Your task to perform on an android device: Search for a 1/4" hex shank drill bit on Lowe's. Image 0: 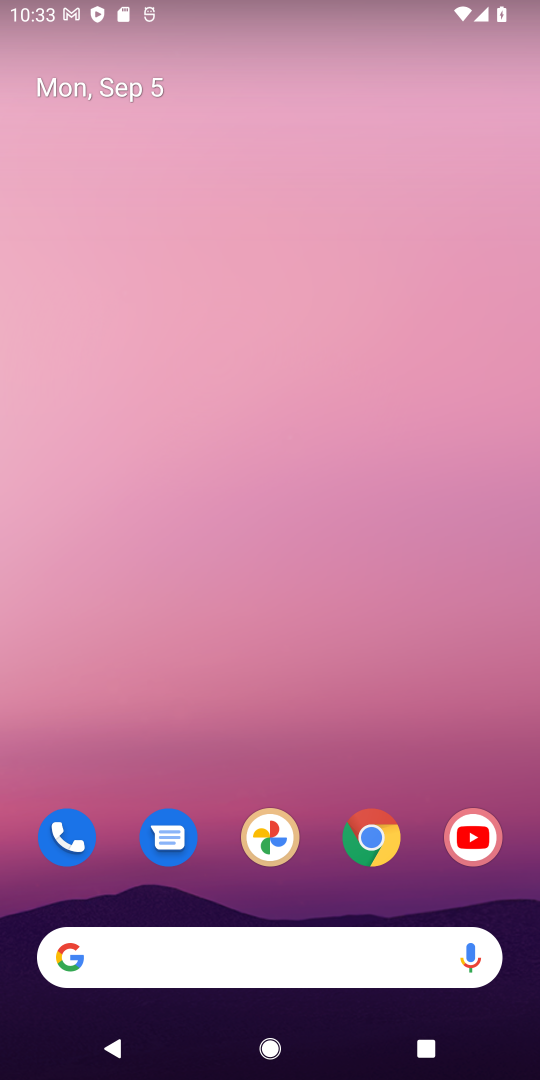
Step 0: press home button
Your task to perform on an android device: Search for a 1/4" hex shank drill bit on Lowe's. Image 1: 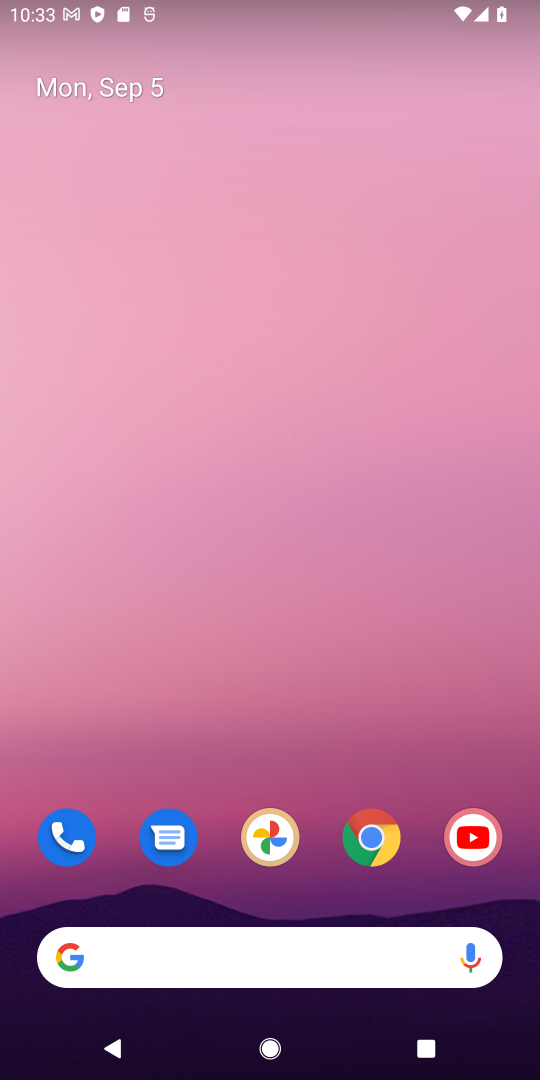
Step 1: press home button
Your task to perform on an android device: Search for a 1/4" hex shank drill bit on Lowe's. Image 2: 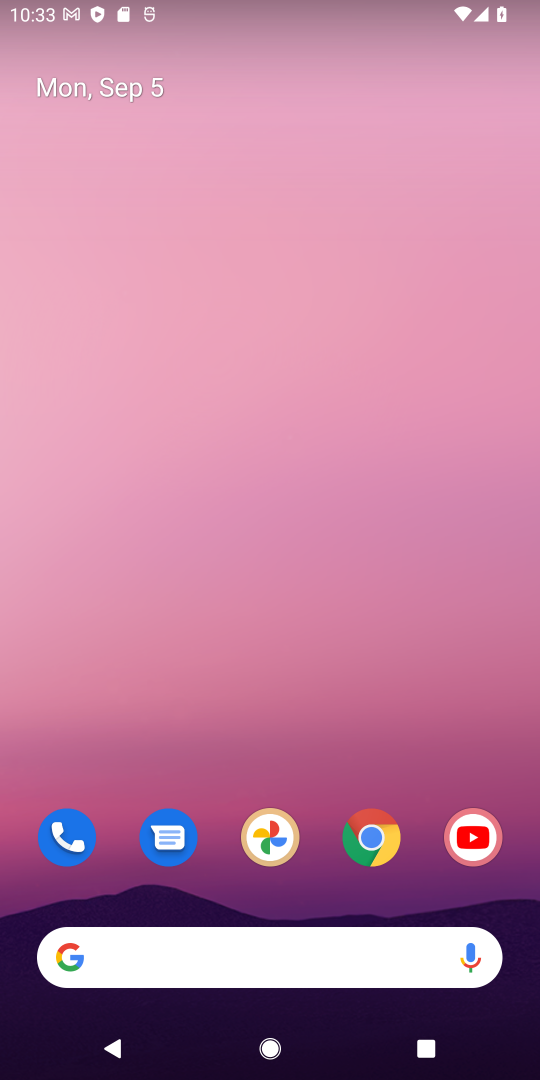
Step 2: drag from (325, 895) to (362, 67)
Your task to perform on an android device: Search for a 1/4" hex shank drill bit on Lowe's. Image 3: 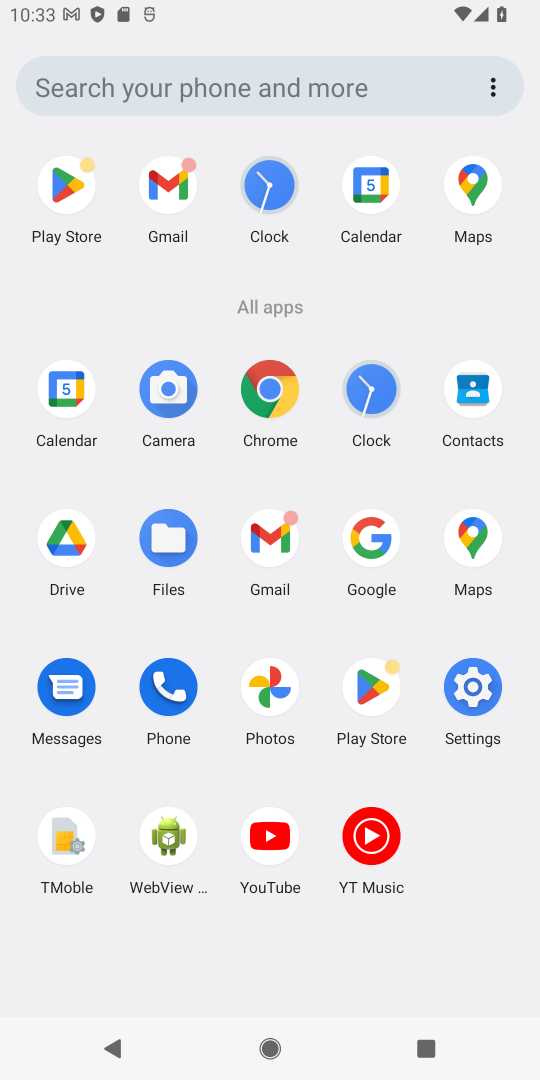
Step 3: click (268, 381)
Your task to perform on an android device: Search for a 1/4" hex shank drill bit on Lowe's. Image 4: 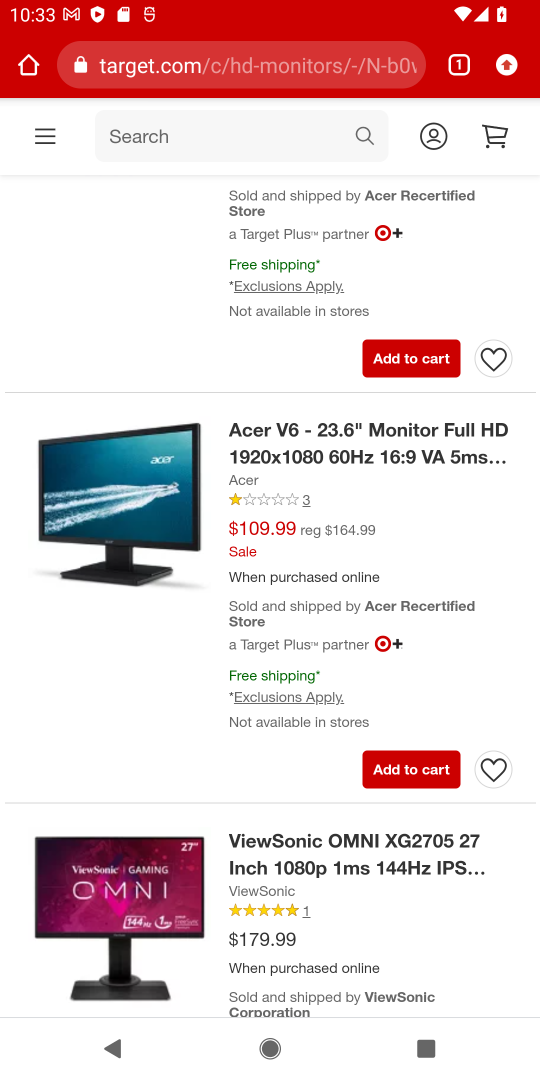
Step 4: click (457, 63)
Your task to perform on an android device: Search for a 1/4" hex shank drill bit on Lowe's. Image 5: 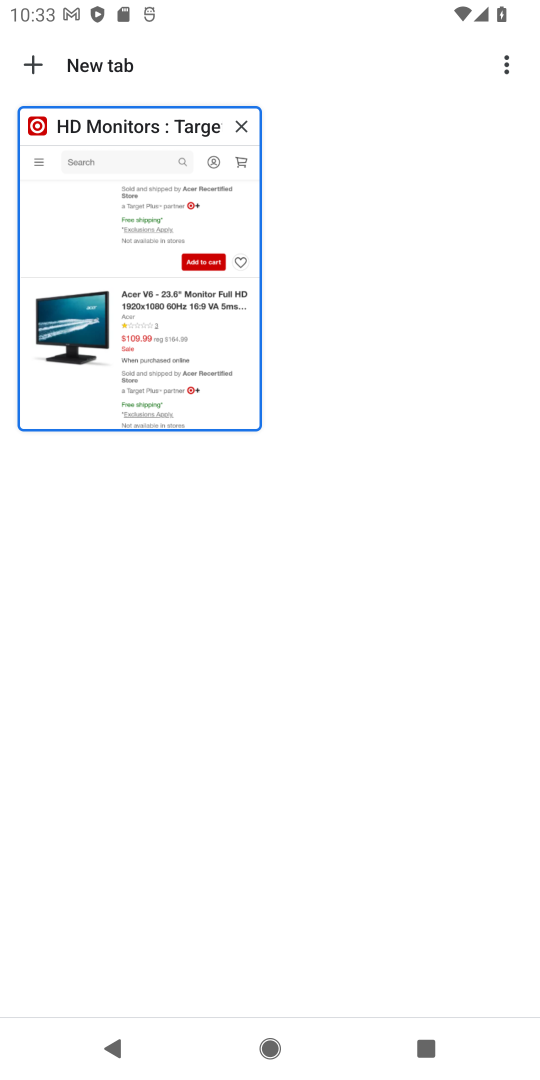
Step 5: click (244, 118)
Your task to perform on an android device: Search for a 1/4" hex shank drill bit on Lowe's. Image 6: 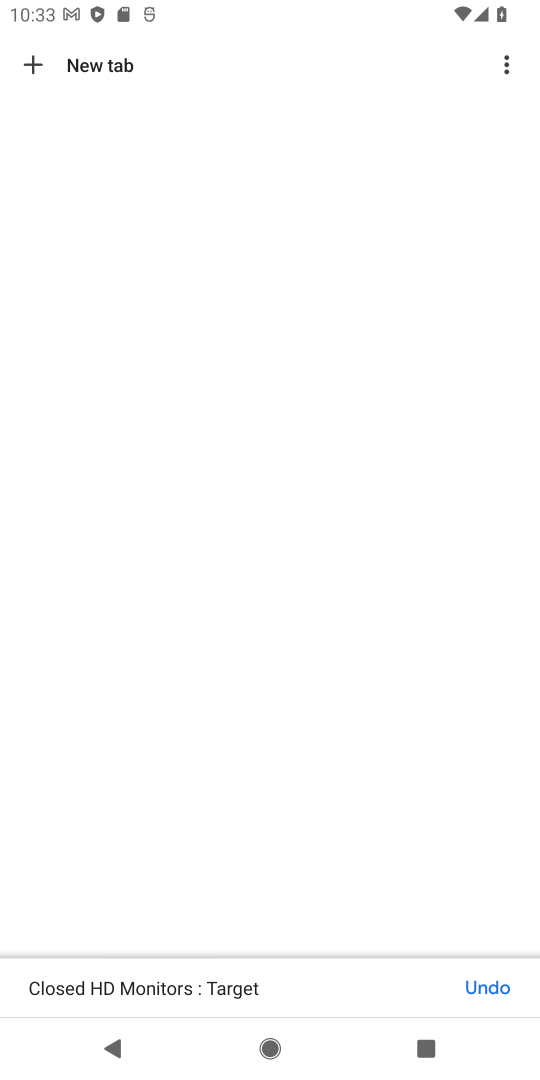
Step 6: click (30, 59)
Your task to perform on an android device: Search for a 1/4" hex shank drill bit on Lowe's. Image 7: 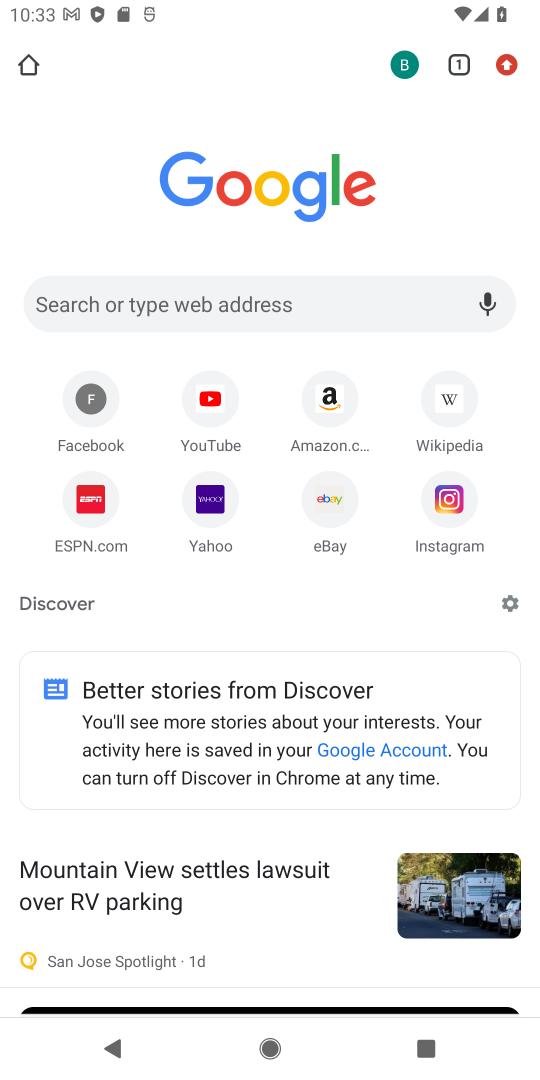
Step 7: type "hex shank drill bit on Lowe's"
Your task to perform on an android device: Search for a 1/4" hex shank drill bit on Lowe's. Image 8: 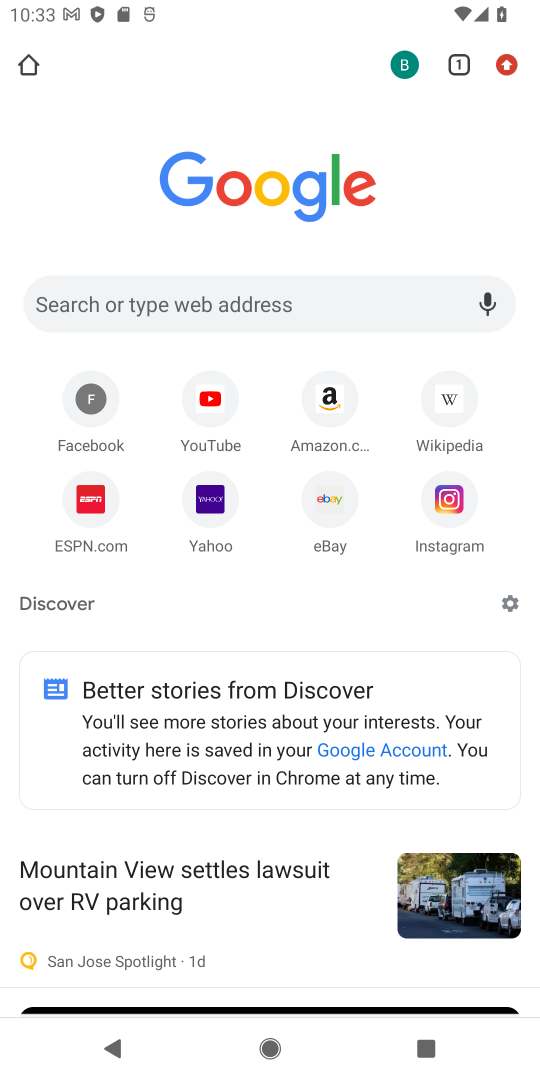
Step 8: click (165, 309)
Your task to perform on an android device: Search for a 1/4" hex shank drill bit on Lowe's. Image 9: 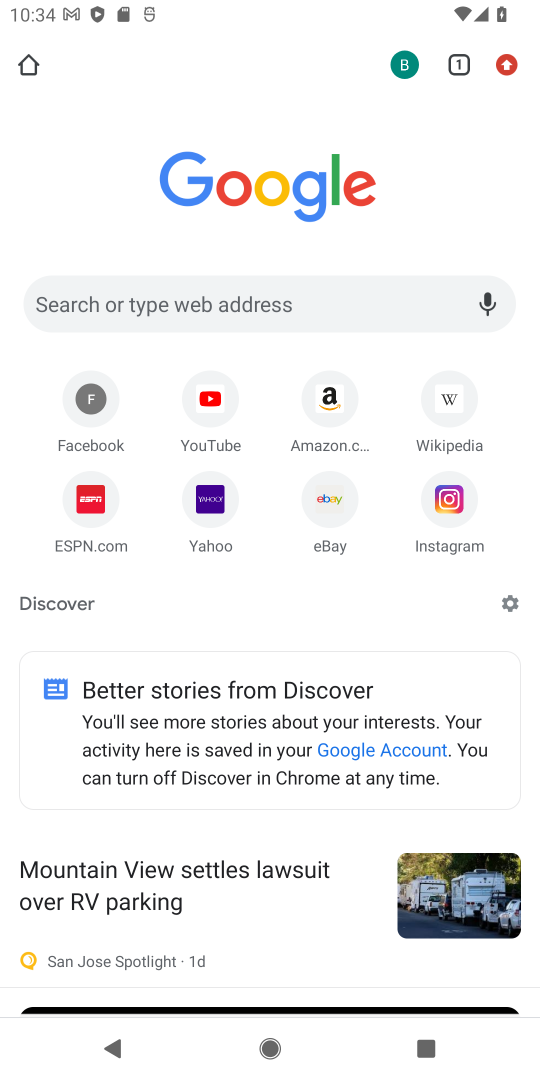
Step 9: click (173, 303)
Your task to perform on an android device: Search for a 1/4" hex shank drill bit on Lowe's. Image 10: 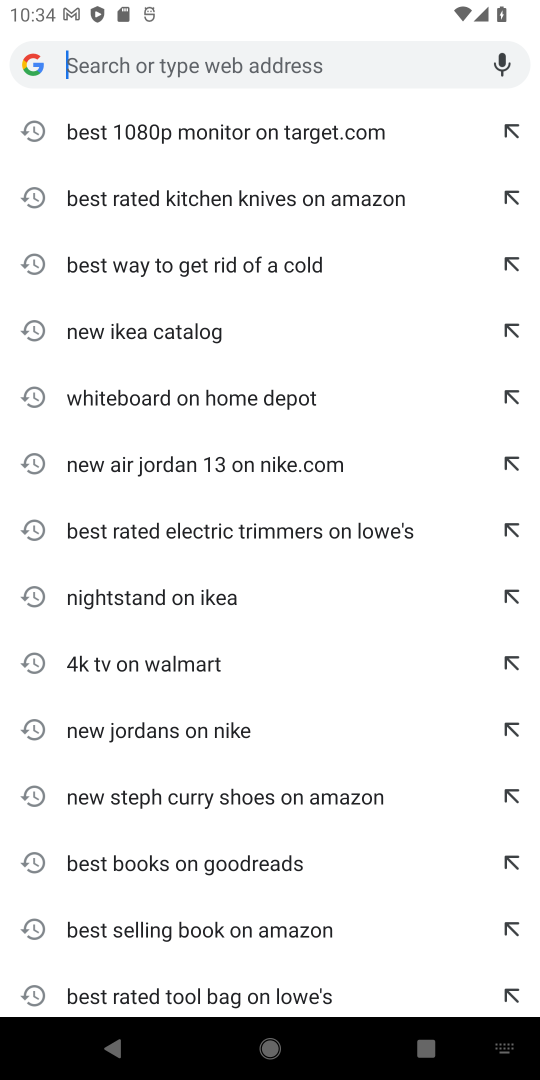
Step 10: type "hex shank drill bit on Lowe's."
Your task to perform on an android device: Search for a 1/4" hex shank drill bit on Lowe's. Image 11: 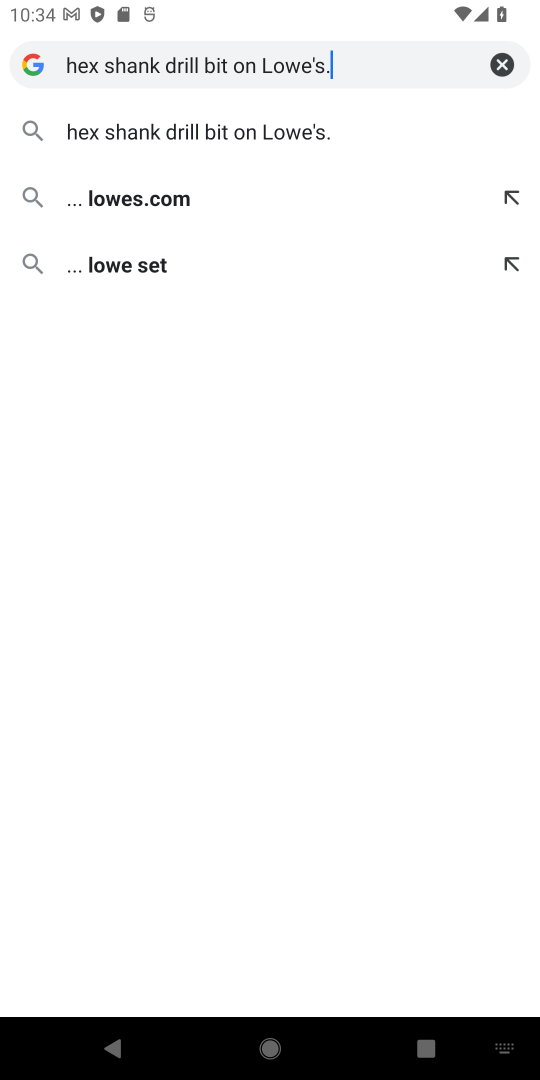
Step 11: click (277, 135)
Your task to perform on an android device: Search for a 1/4" hex shank drill bit on Lowe's. Image 12: 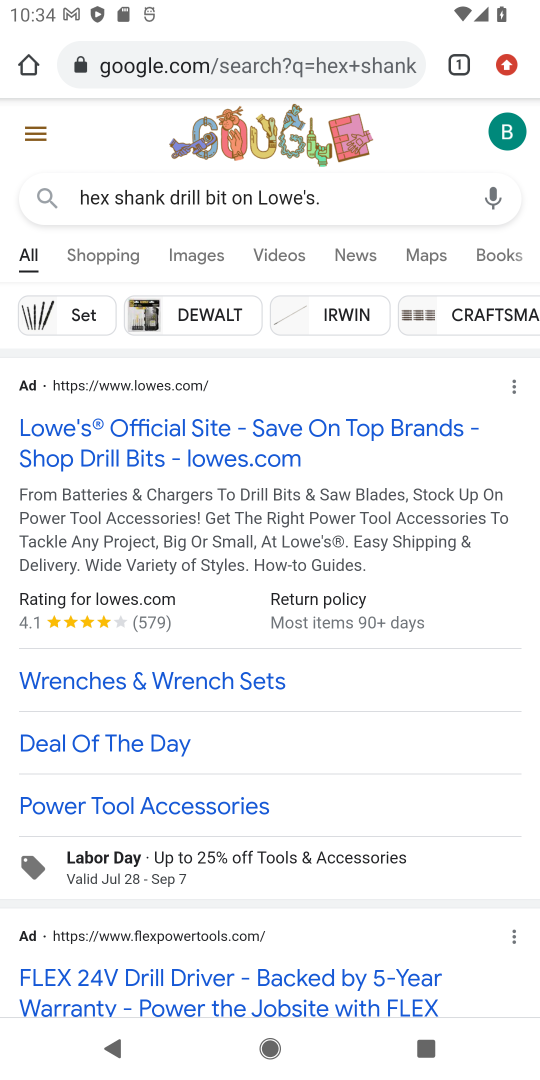
Step 12: click (258, 455)
Your task to perform on an android device: Search for a 1/4" hex shank drill bit on Lowe's. Image 13: 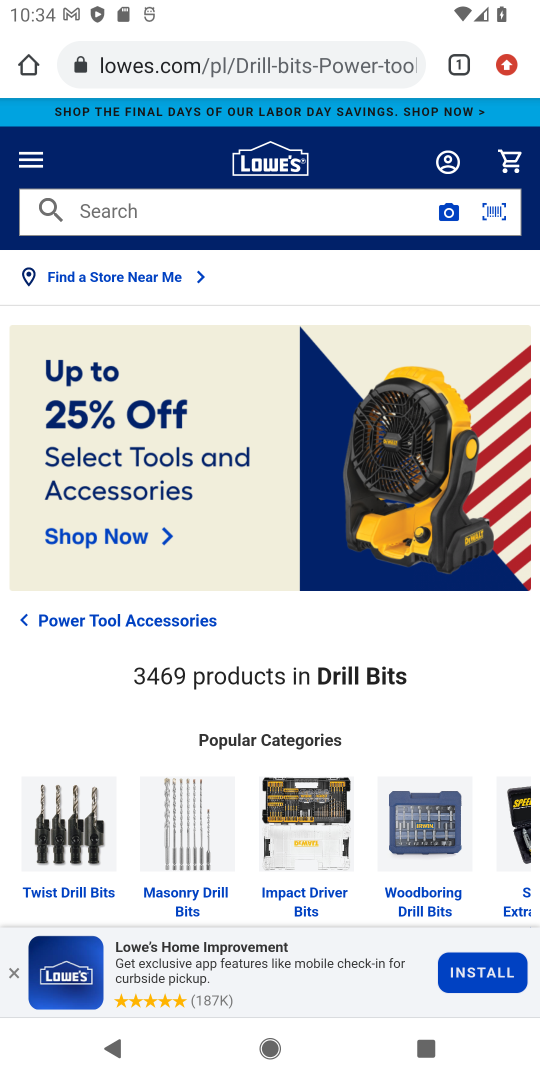
Step 13: drag from (259, 797) to (271, 130)
Your task to perform on an android device: Search for a 1/4" hex shank drill bit on Lowe's. Image 14: 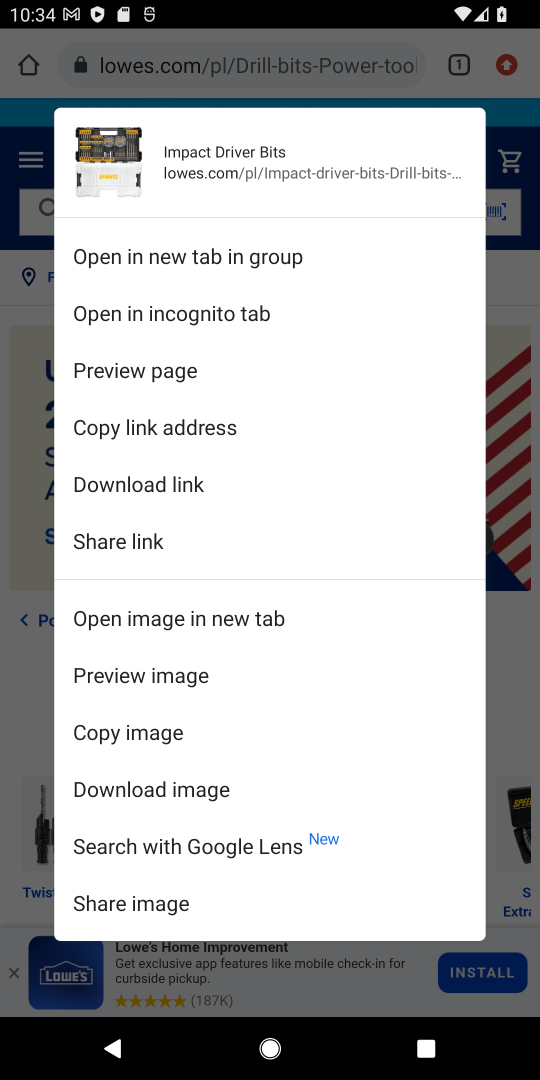
Step 14: click (31, 831)
Your task to perform on an android device: Search for a 1/4" hex shank drill bit on Lowe's. Image 15: 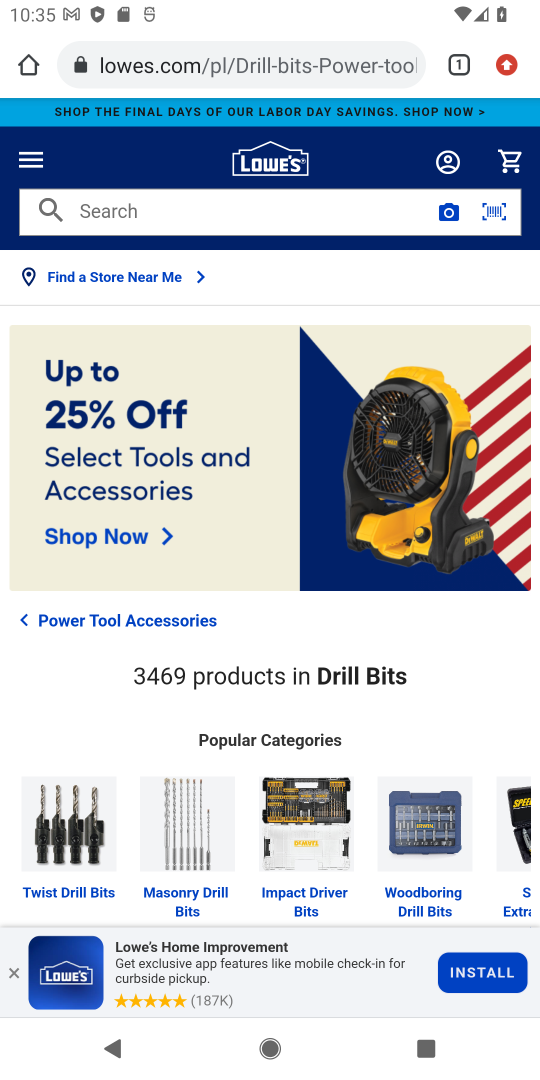
Step 15: task complete